Your task to perform on an android device: turn on location history Image 0: 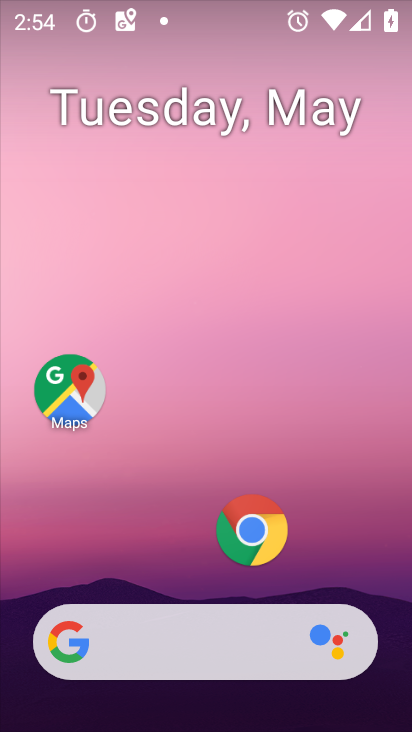
Step 0: drag from (226, 605) to (128, 5)
Your task to perform on an android device: turn on location history Image 1: 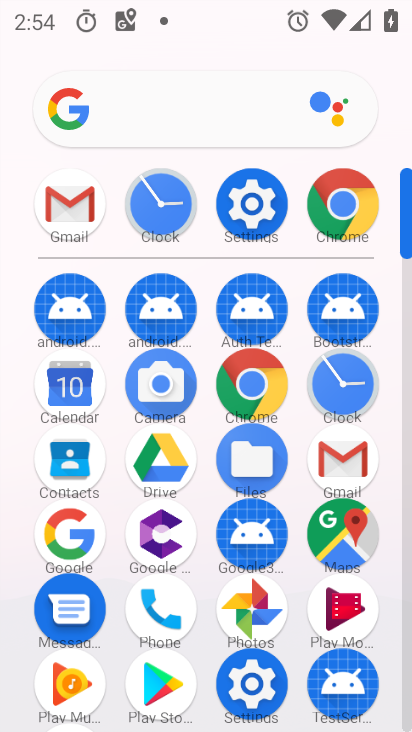
Step 1: click (228, 201)
Your task to perform on an android device: turn on location history Image 2: 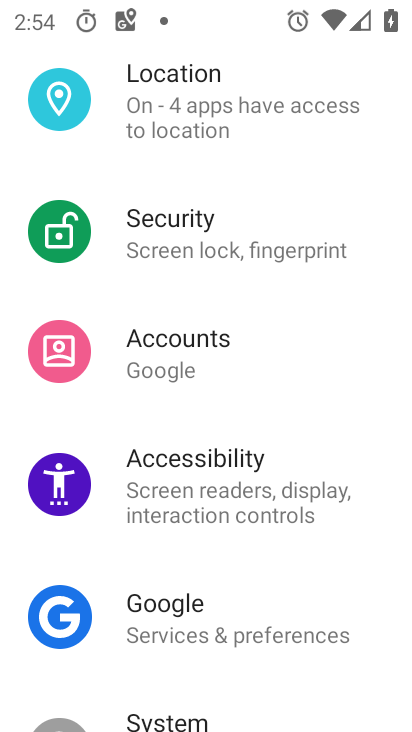
Step 2: drag from (167, 511) to (185, 344)
Your task to perform on an android device: turn on location history Image 3: 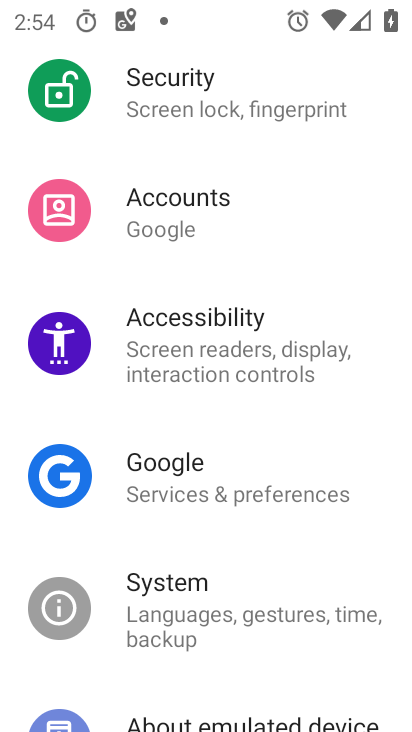
Step 3: drag from (128, 102) to (162, 349)
Your task to perform on an android device: turn on location history Image 4: 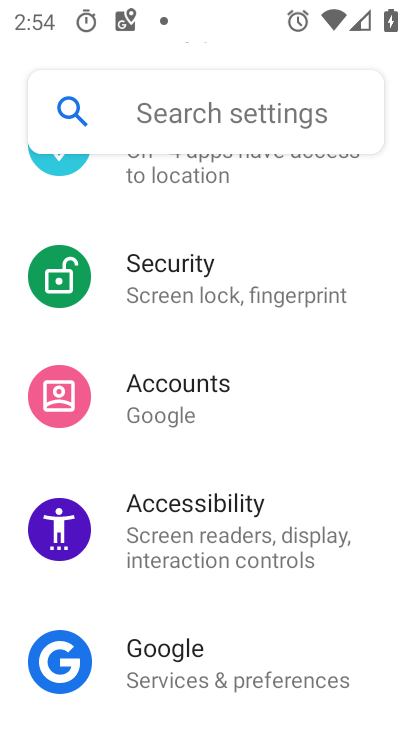
Step 4: click (247, 189)
Your task to perform on an android device: turn on location history Image 5: 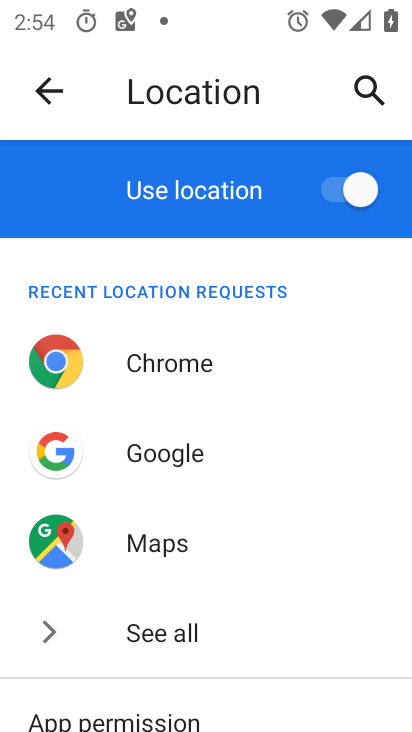
Step 5: task complete